Your task to perform on an android device: Open my contact list Image 0: 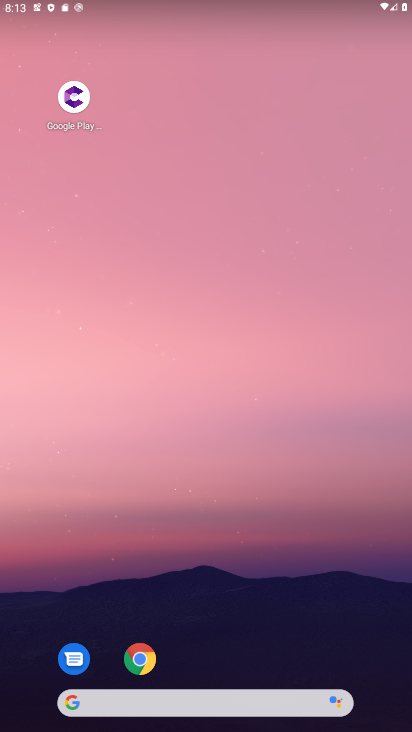
Step 0: drag from (201, 646) to (201, 158)
Your task to perform on an android device: Open my contact list Image 1: 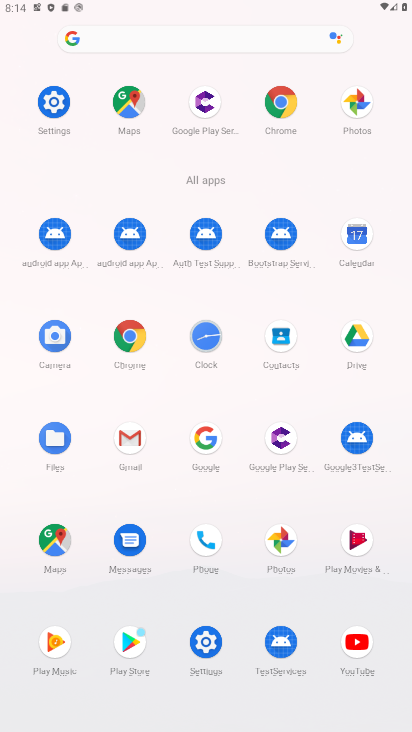
Step 1: click (277, 346)
Your task to perform on an android device: Open my contact list Image 2: 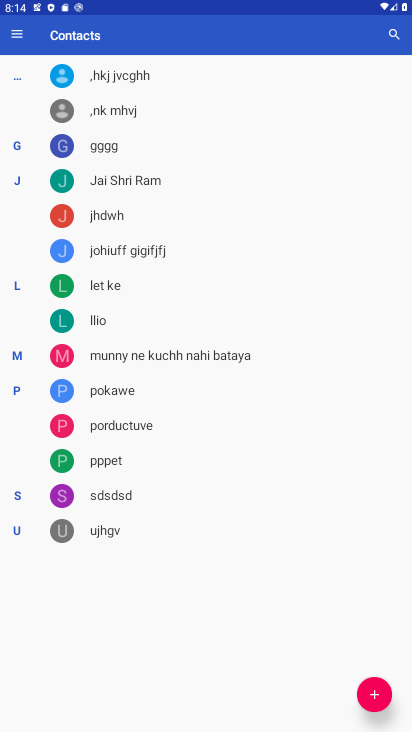
Step 2: task complete